Your task to perform on an android device: manage bookmarks in the chrome app Image 0: 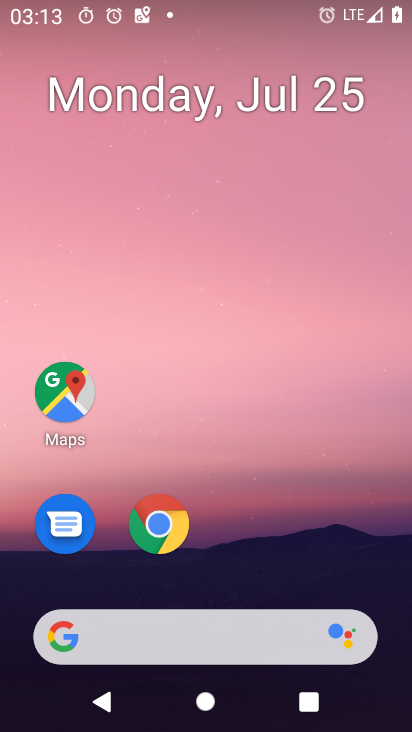
Step 0: press home button
Your task to perform on an android device: manage bookmarks in the chrome app Image 1: 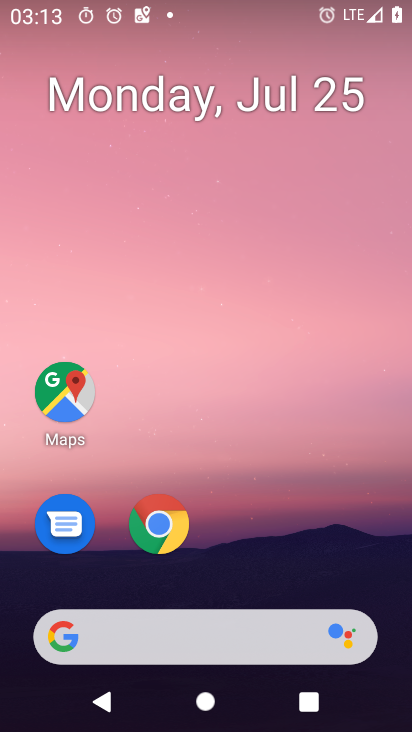
Step 1: drag from (208, 581) to (255, 27)
Your task to perform on an android device: manage bookmarks in the chrome app Image 2: 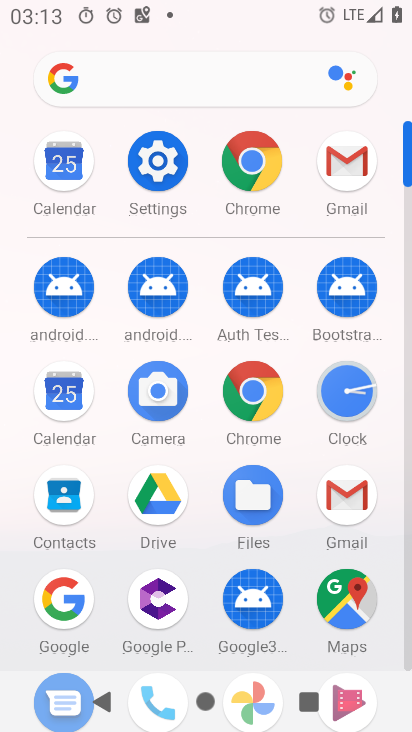
Step 2: click (250, 166)
Your task to perform on an android device: manage bookmarks in the chrome app Image 3: 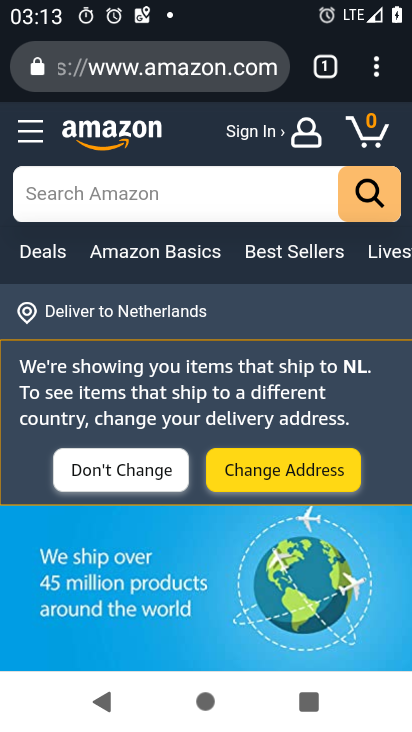
Step 3: drag from (386, 65) to (186, 249)
Your task to perform on an android device: manage bookmarks in the chrome app Image 4: 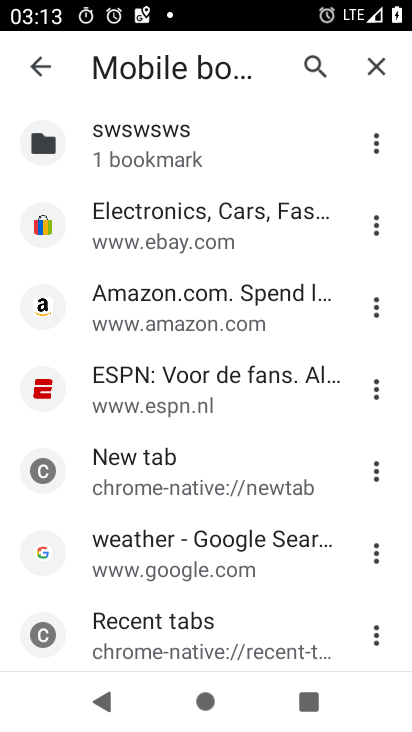
Step 4: click (372, 234)
Your task to perform on an android device: manage bookmarks in the chrome app Image 5: 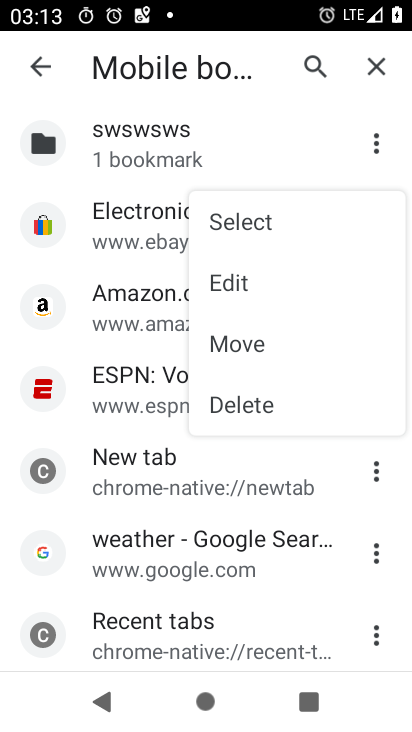
Step 5: click (214, 284)
Your task to perform on an android device: manage bookmarks in the chrome app Image 6: 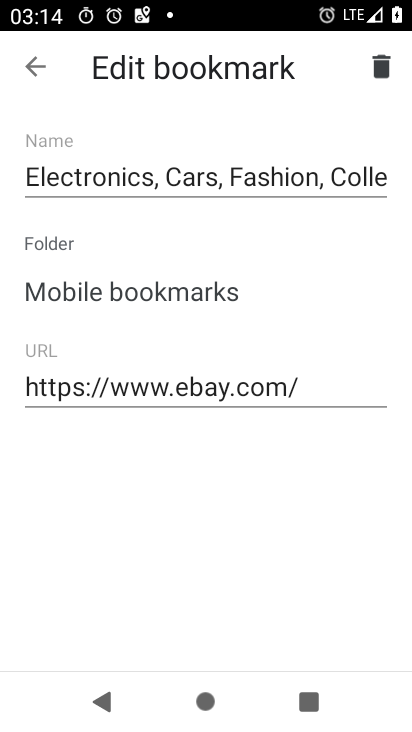
Step 6: task complete